Your task to perform on an android device: Open calendar and show me the second week of next month Image 0: 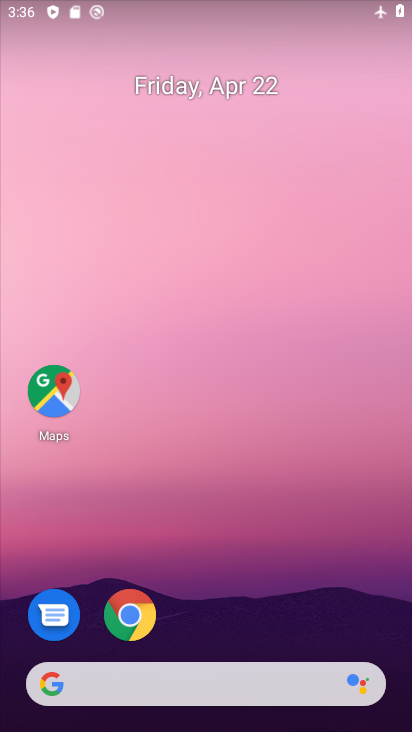
Step 0: drag from (217, 625) to (270, 222)
Your task to perform on an android device: Open calendar and show me the second week of next month Image 1: 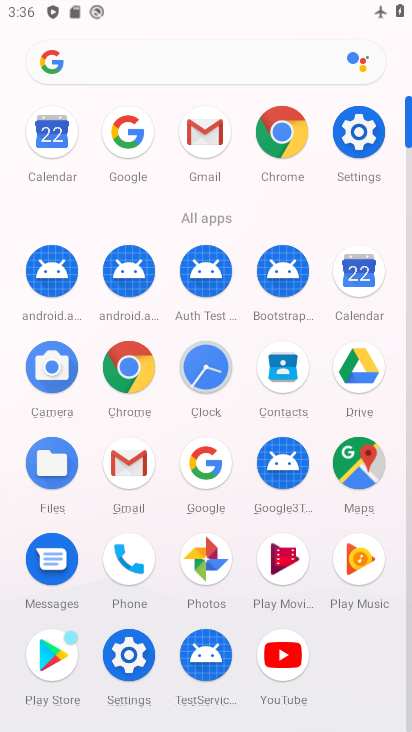
Step 1: click (367, 278)
Your task to perform on an android device: Open calendar and show me the second week of next month Image 2: 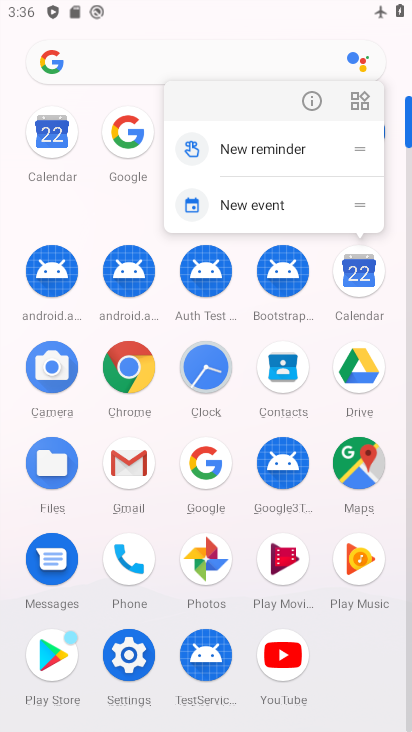
Step 2: click (359, 279)
Your task to perform on an android device: Open calendar and show me the second week of next month Image 3: 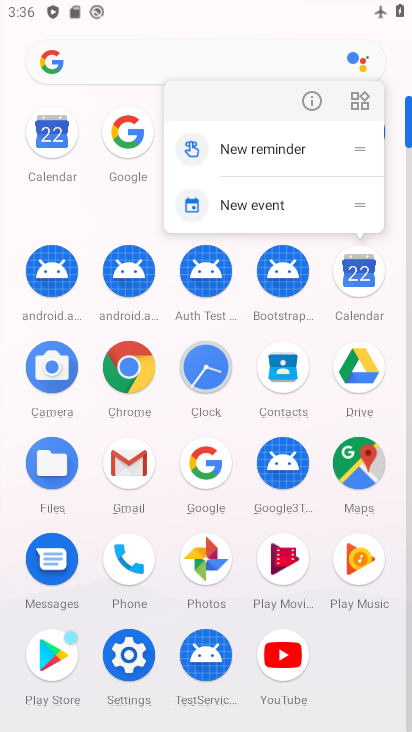
Step 3: click (353, 267)
Your task to perform on an android device: Open calendar and show me the second week of next month Image 4: 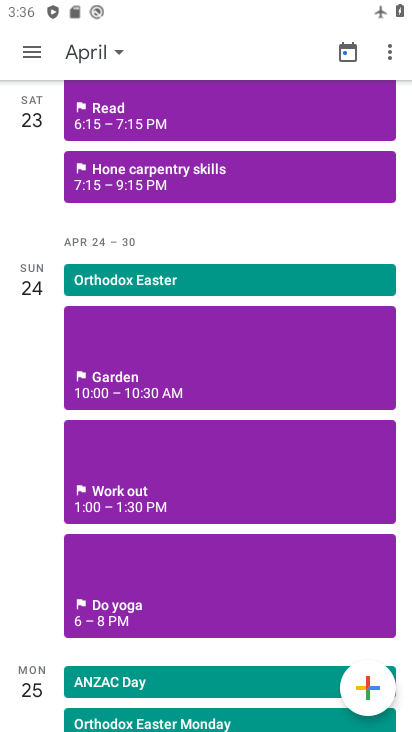
Step 4: click (93, 49)
Your task to perform on an android device: Open calendar and show me the second week of next month Image 5: 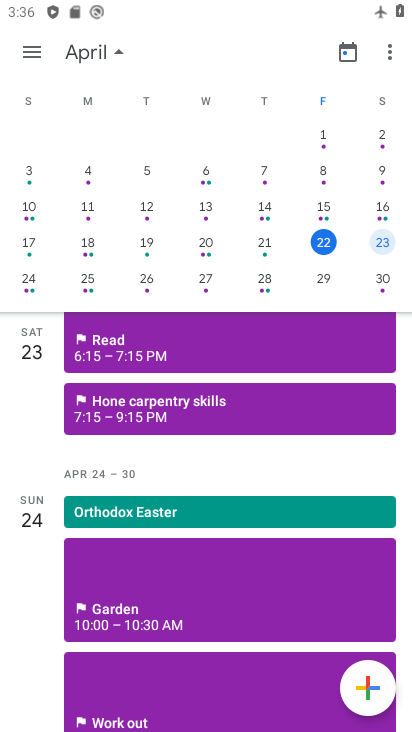
Step 5: drag from (393, 260) to (22, 272)
Your task to perform on an android device: Open calendar and show me the second week of next month Image 6: 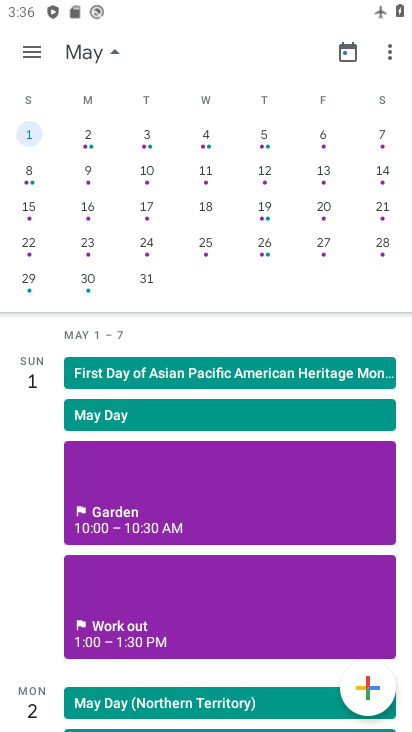
Step 6: click (30, 170)
Your task to perform on an android device: Open calendar and show me the second week of next month Image 7: 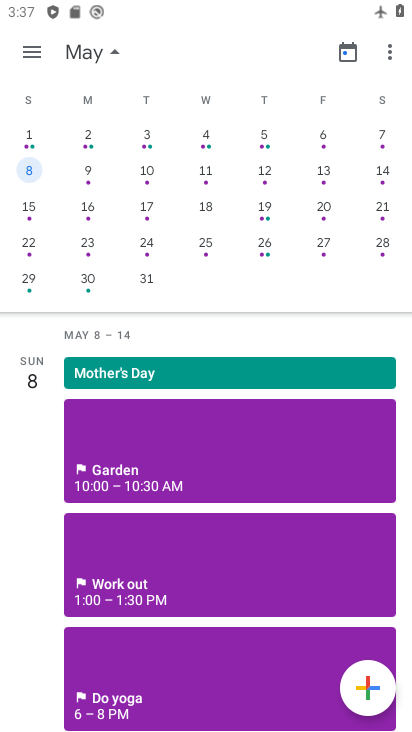
Step 7: task complete